Your task to perform on an android device: Show me popular games on the Play Store Image 0: 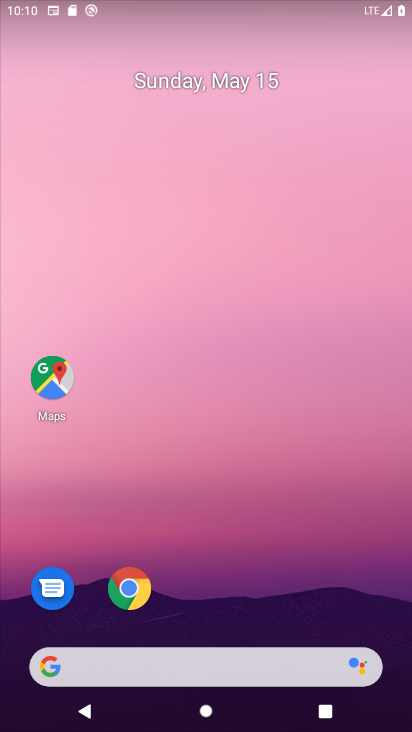
Step 0: drag from (264, 604) to (204, 172)
Your task to perform on an android device: Show me popular games on the Play Store Image 1: 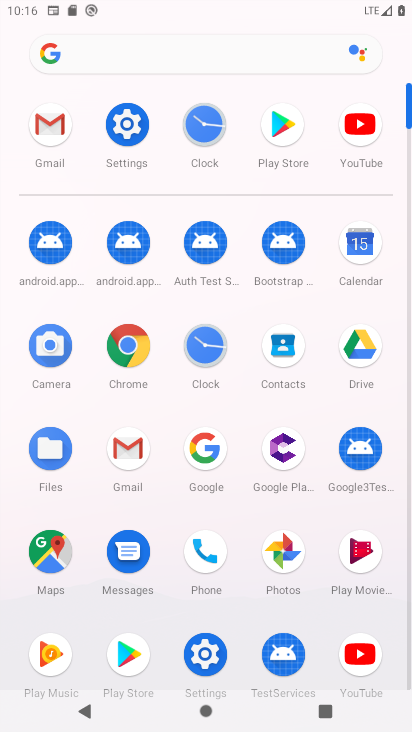
Step 1: click (129, 654)
Your task to perform on an android device: Show me popular games on the Play Store Image 2: 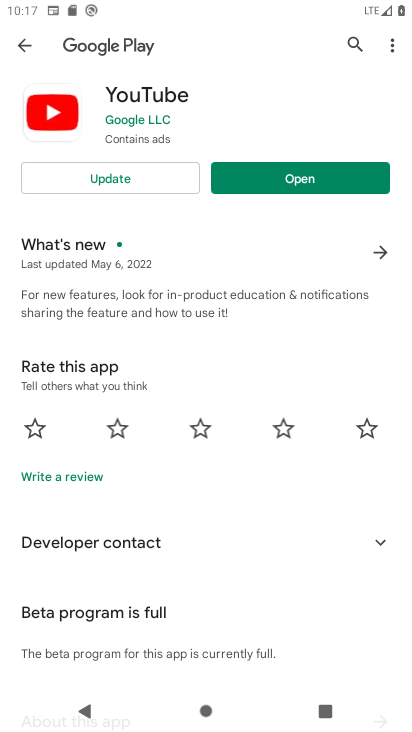
Step 2: click (28, 46)
Your task to perform on an android device: Show me popular games on the Play Store Image 3: 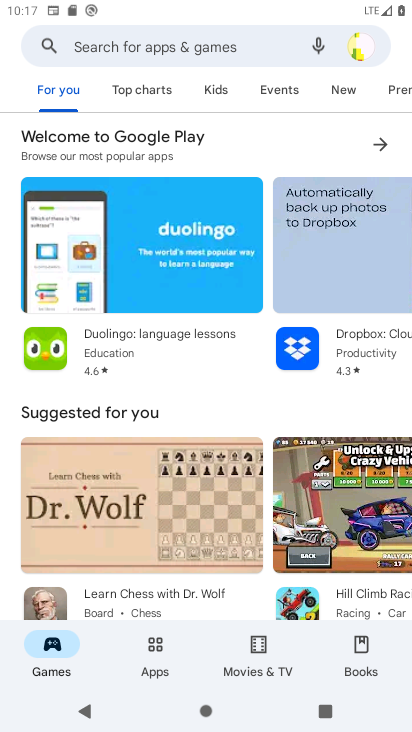
Step 3: click (217, 45)
Your task to perform on an android device: Show me popular games on the Play Store Image 4: 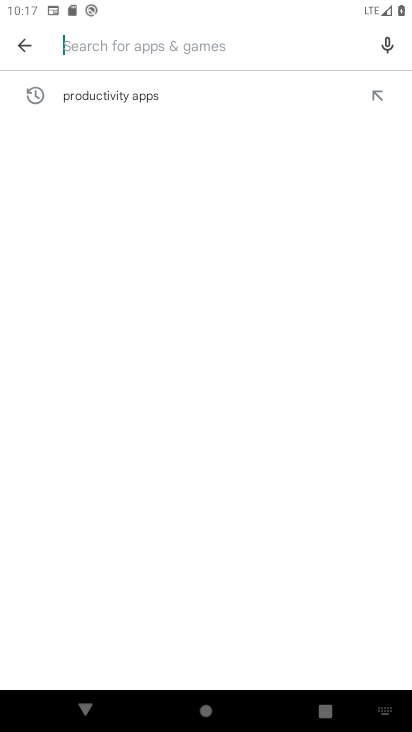
Step 4: type "popular games"
Your task to perform on an android device: Show me popular games on the Play Store Image 5: 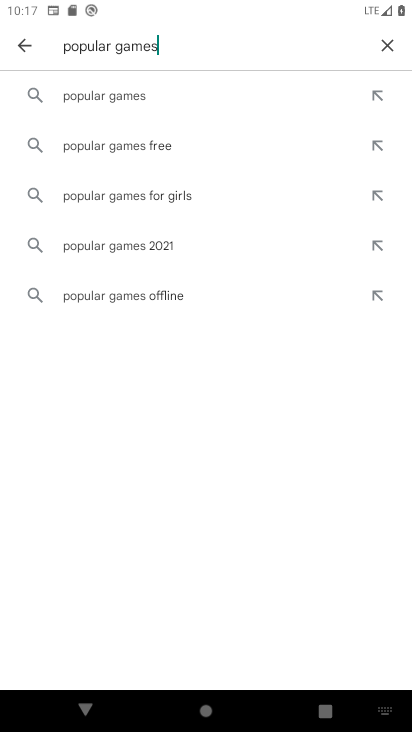
Step 5: click (134, 91)
Your task to perform on an android device: Show me popular games on the Play Store Image 6: 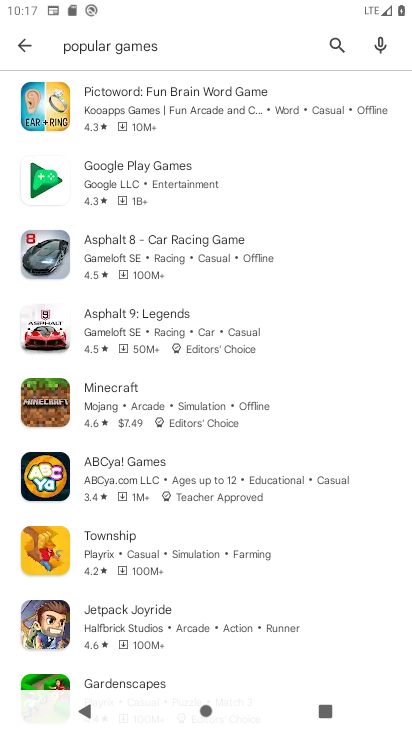
Step 6: task complete